Your task to perform on an android device: turn on translation in the chrome app Image 0: 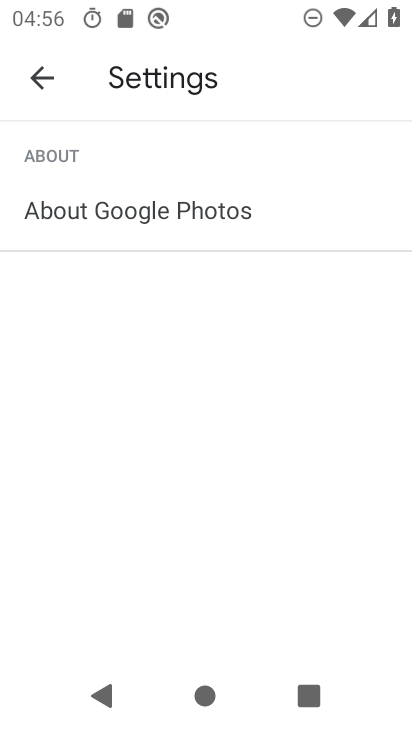
Step 0: press home button
Your task to perform on an android device: turn on translation in the chrome app Image 1: 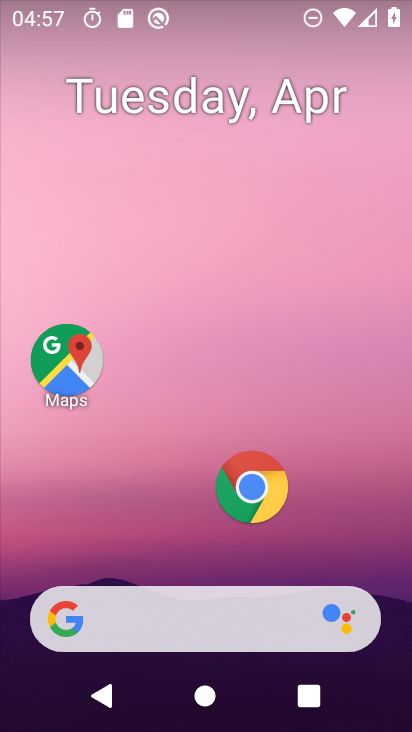
Step 1: click (257, 478)
Your task to perform on an android device: turn on translation in the chrome app Image 2: 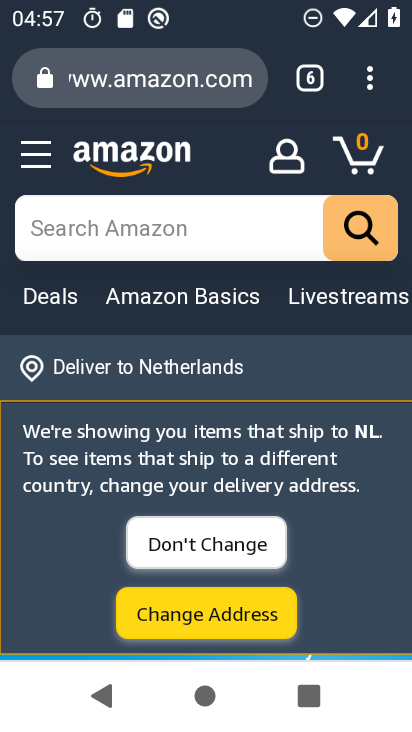
Step 2: click (367, 78)
Your task to perform on an android device: turn on translation in the chrome app Image 3: 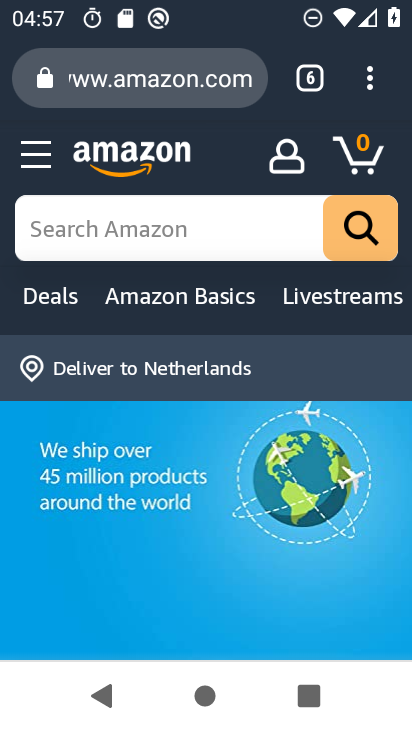
Step 3: drag from (378, 69) to (79, 545)
Your task to perform on an android device: turn on translation in the chrome app Image 4: 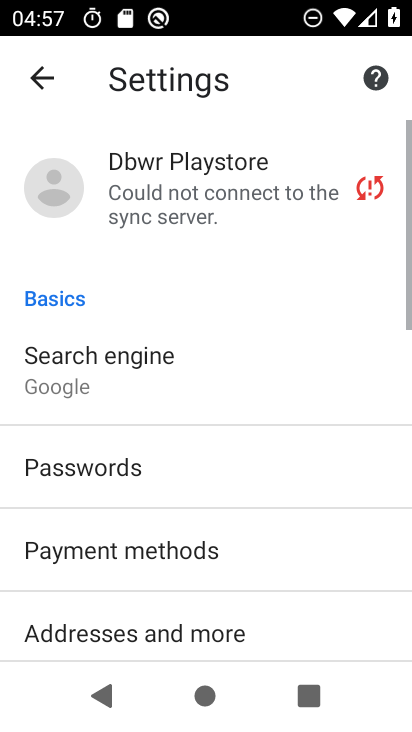
Step 4: drag from (177, 620) to (345, 69)
Your task to perform on an android device: turn on translation in the chrome app Image 5: 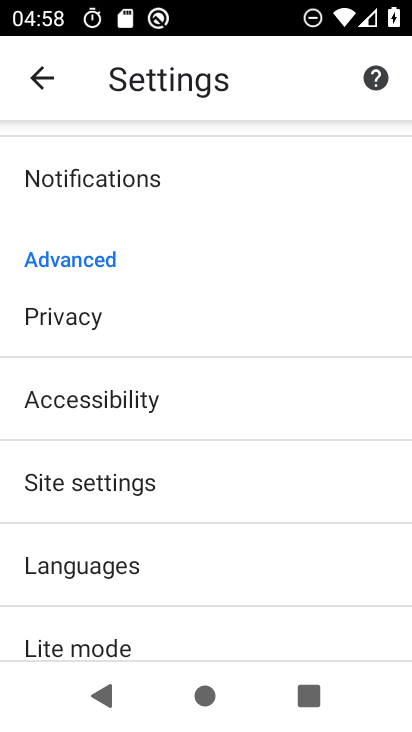
Step 5: drag from (132, 610) to (197, 404)
Your task to perform on an android device: turn on translation in the chrome app Image 6: 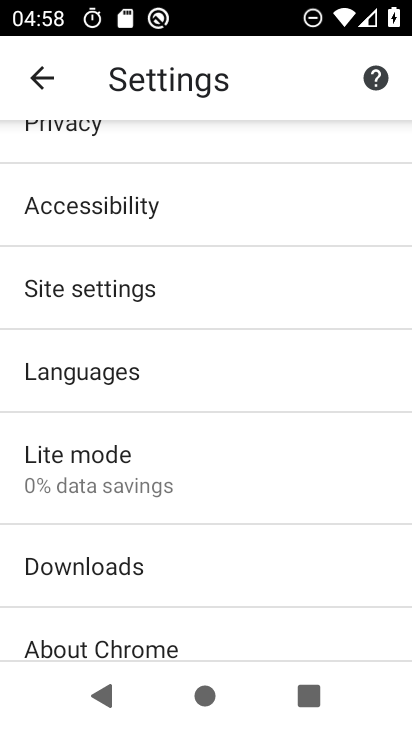
Step 6: click (91, 364)
Your task to perform on an android device: turn on translation in the chrome app Image 7: 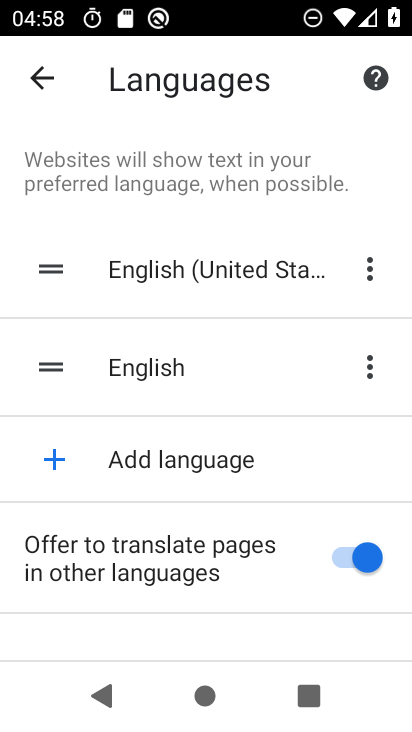
Step 7: task complete